Your task to perform on an android device: set an alarm Image 0: 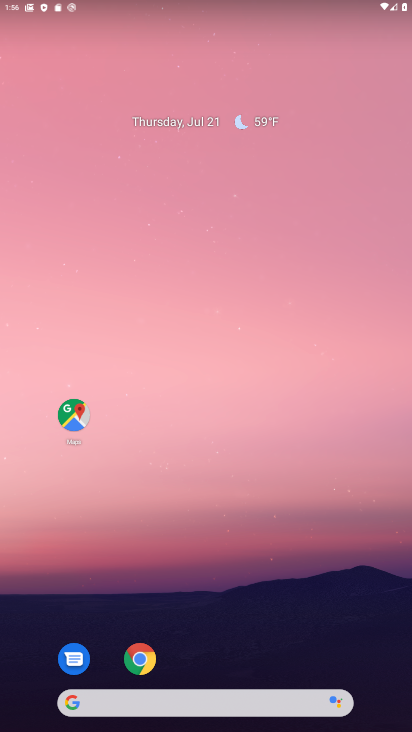
Step 0: drag from (315, 658) to (325, 90)
Your task to perform on an android device: set an alarm Image 1: 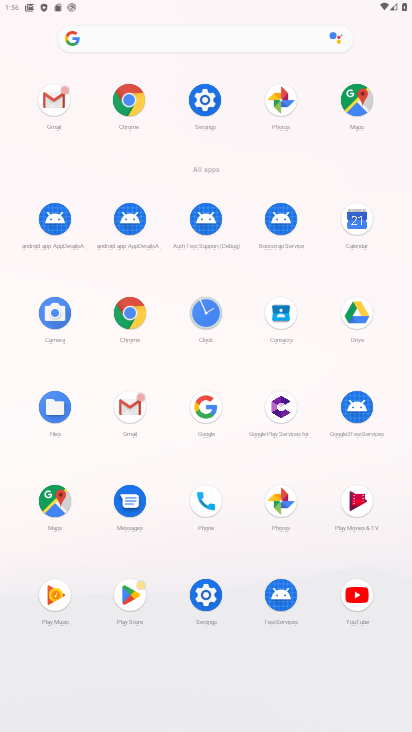
Step 1: click (194, 311)
Your task to perform on an android device: set an alarm Image 2: 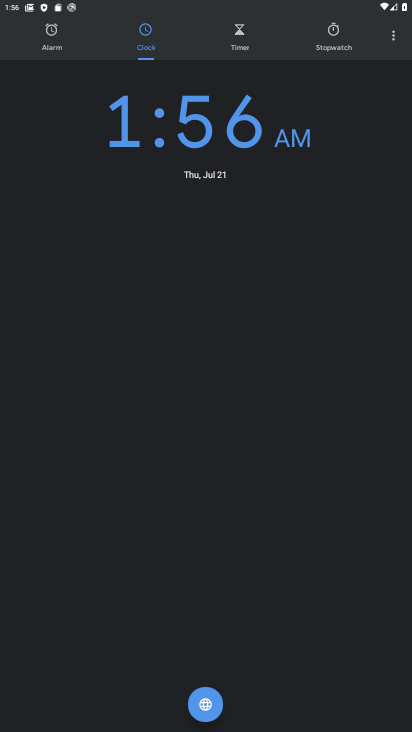
Step 2: click (36, 38)
Your task to perform on an android device: set an alarm Image 3: 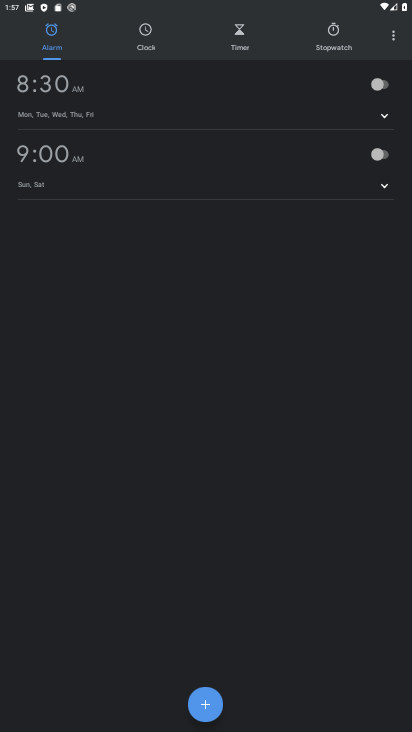
Step 3: click (206, 697)
Your task to perform on an android device: set an alarm Image 4: 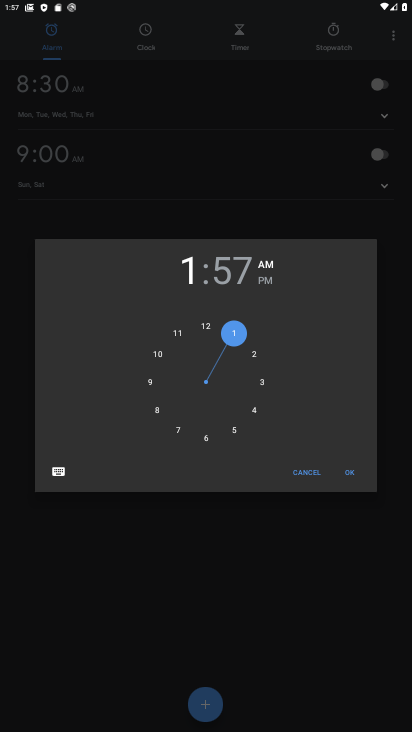
Step 4: click (348, 469)
Your task to perform on an android device: set an alarm Image 5: 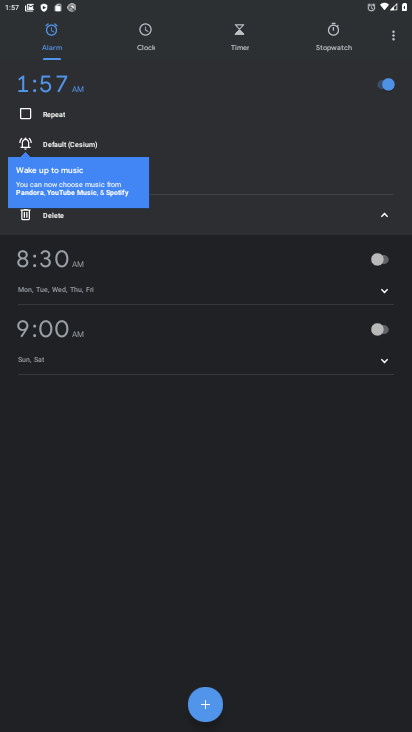
Step 5: task complete